Your task to perform on an android device: Open settings Image 0: 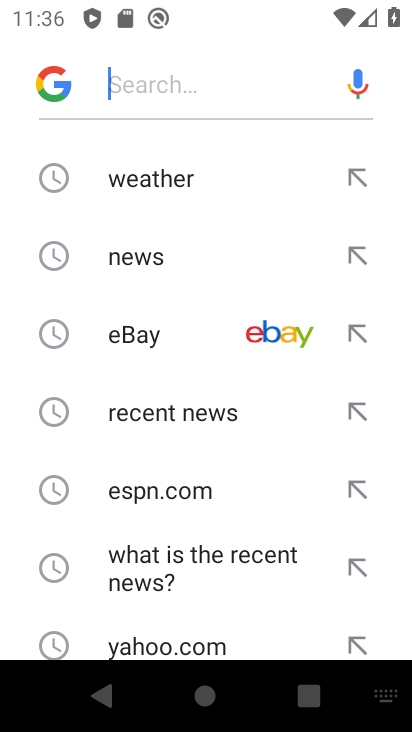
Step 0: press home button
Your task to perform on an android device: Open settings Image 1: 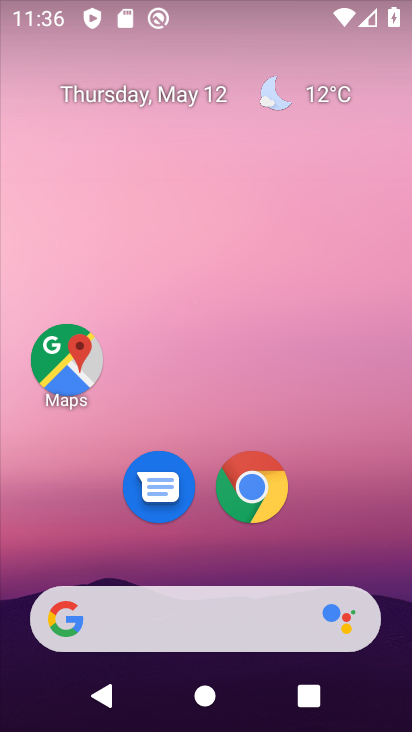
Step 1: drag from (179, 567) to (247, 29)
Your task to perform on an android device: Open settings Image 2: 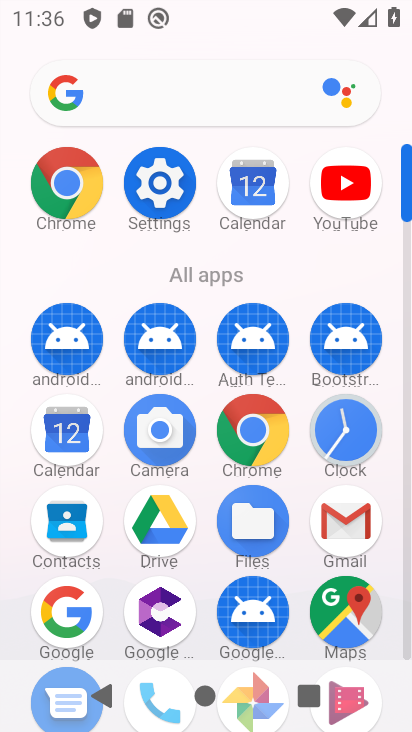
Step 2: click (154, 162)
Your task to perform on an android device: Open settings Image 3: 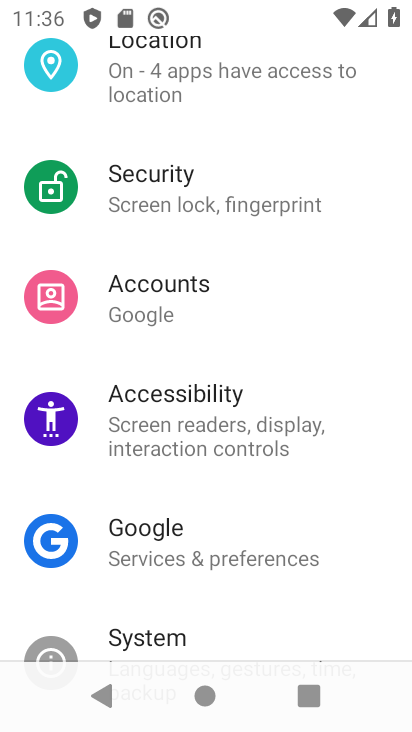
Step 3: task complete